Your task to perform on an android device: stop showing notifications on the lock screen Image 0: 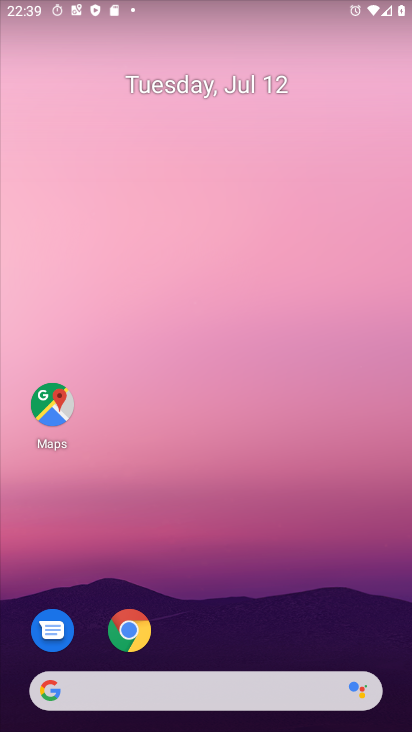
Step 0: drag from (259, 630) to (172, 22)
Your task to perform on an android device: stop showing notifications on the lock screen Image 1: 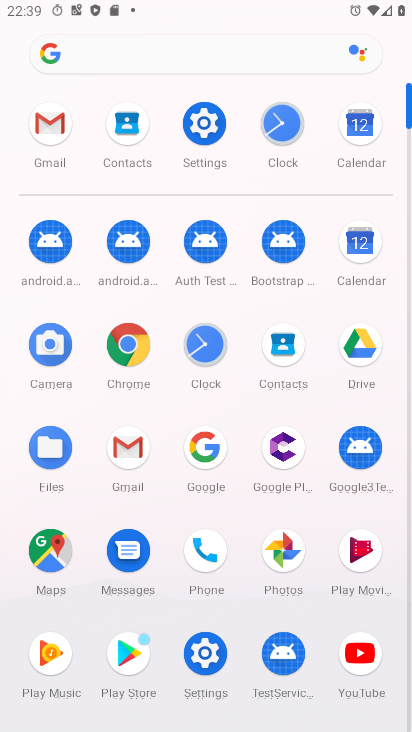
Step 1: click (210, 139)
Your task to perform on an android device: stop showing notifications on the lock screen Image 2: 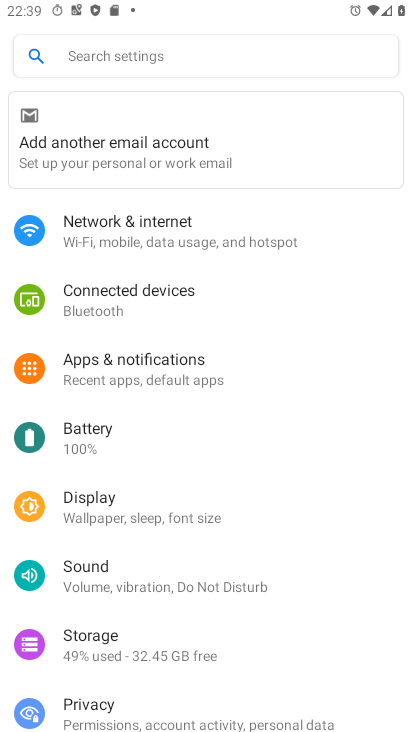
Step 2: click (127, 377)
Your task to perform on an android device: stop showing notifications on the lock screen Image 3: 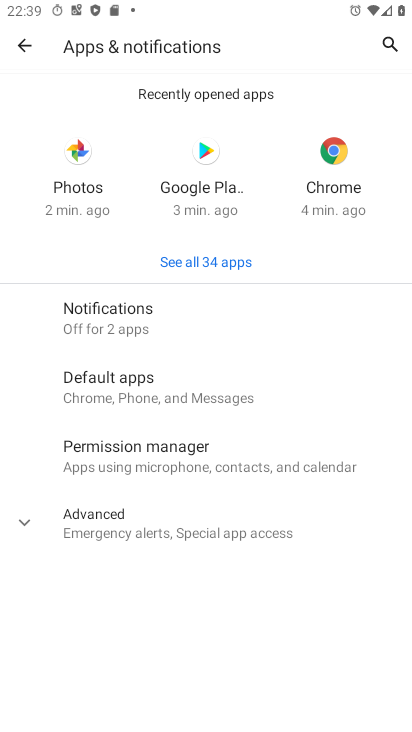
Step 3: click (175, 322)
Your task to perform on an android device: stop showing notifications on the lock screen Image 4: 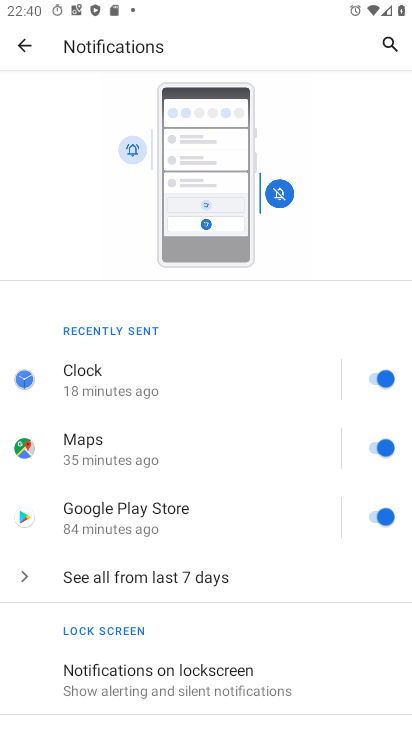
Step 4: click (161, 677)
Your task to perform on an android device: stop showing notifications on the lock screen Image 5: 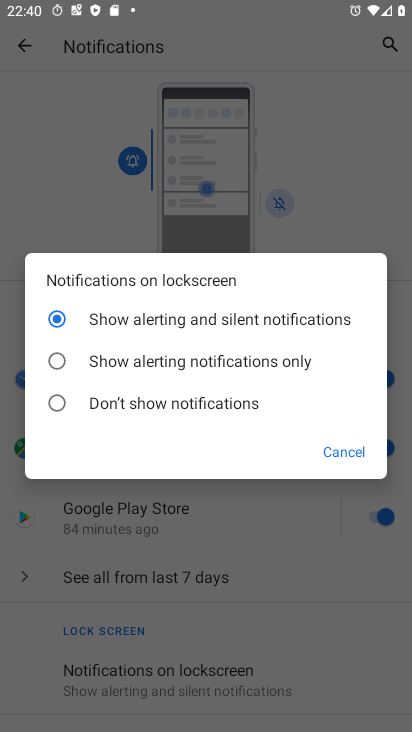
Step 5: click (127, 409)
Your task to perform on an android device: stop showing notifications on the lock screen Image 6: 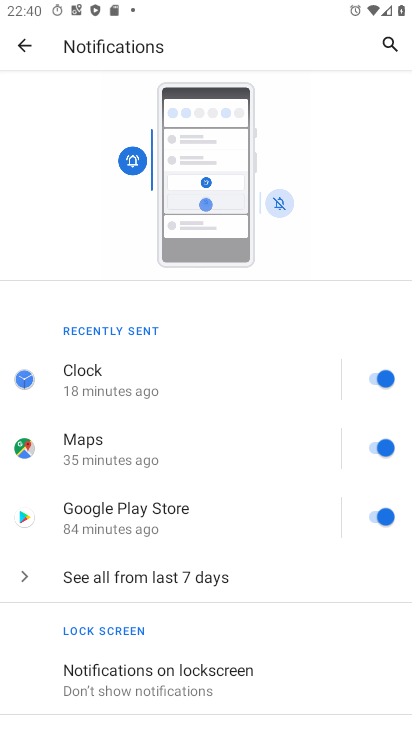
Step 6: task complete